Your task to perform on an android device: Open privacy settings Image 0: 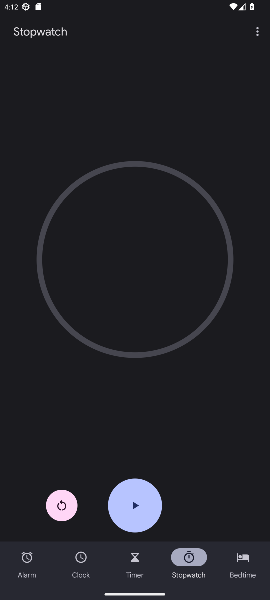
Step 0: press home button
Your task to perform on an android device: Open privacy settings Image 1: 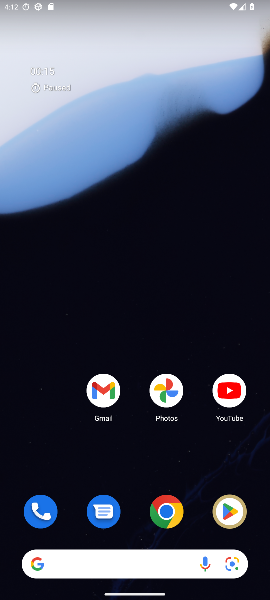
Step 1: drag from (135, 443) to (175, 3)
Your task to perform on an android device: Open privacy settings Image 2: 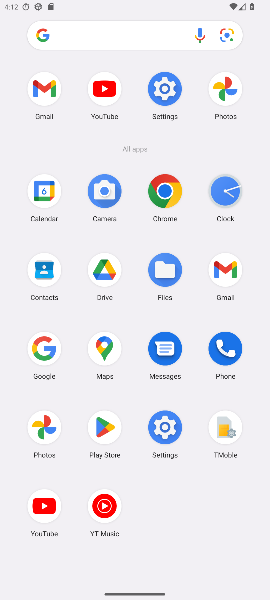
Step 2: click (156, 451)
Your task to perform on an android device: Open privacy settings Image 3: 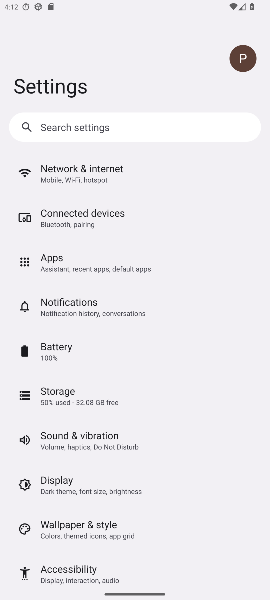
Step 3: drag from (61, 558) to (95, 279)
Your task to perform on an android device: Open privacy settings Image 4: 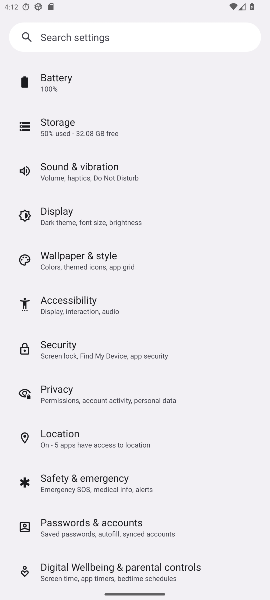
Step 4: click (68, 387)
Your task to perform on an android device: Open privacy settings Image 5: 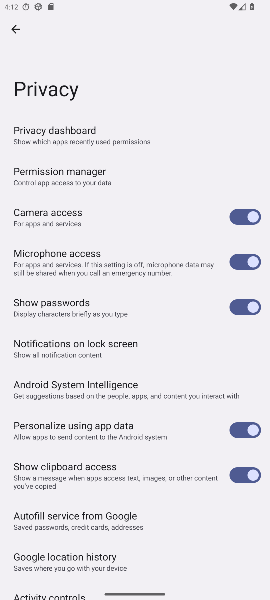
Step 5: task complete